Your task to perform on an android device: open a new tab in the chrome app Image 0: 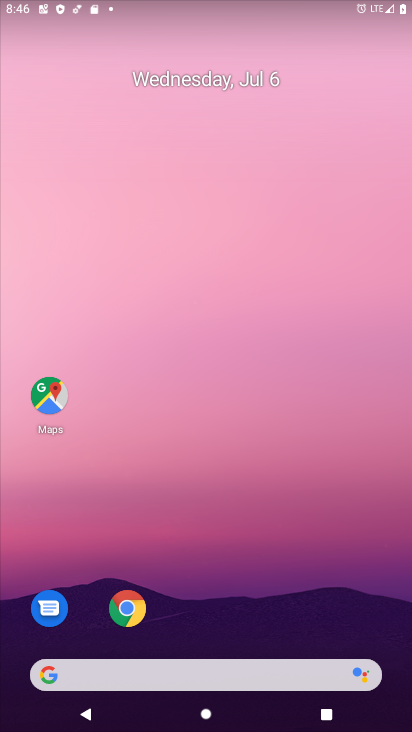
Step 0: drag from (267, 143) to (251, 48)
Your task to perform on an android device: open a new tab in the chrome app Image 1: 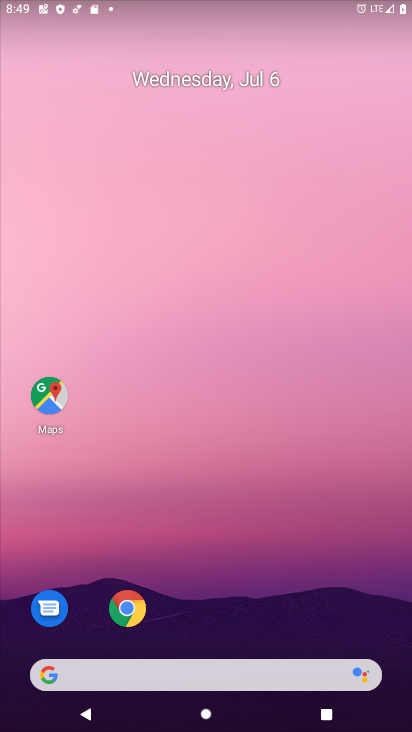
Step 1: drag from (392, 647) to (209, 8)
Your task to perform on an android device: open a new tab in the chrome app Image 2: 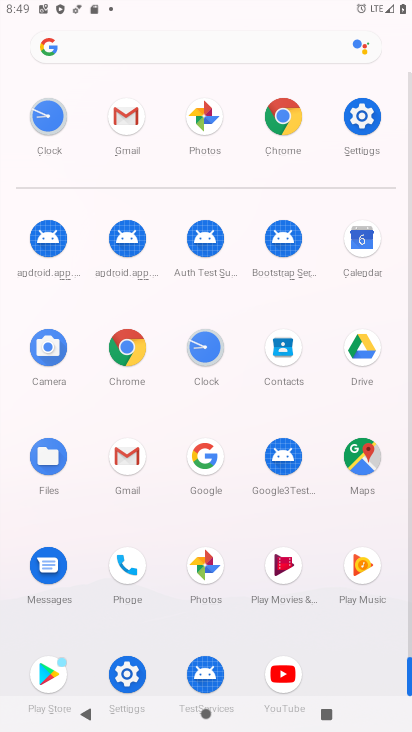
Step 2: click (280, 115)
Your task to perform on an android device: open a new tab in the chrome app Image 3: 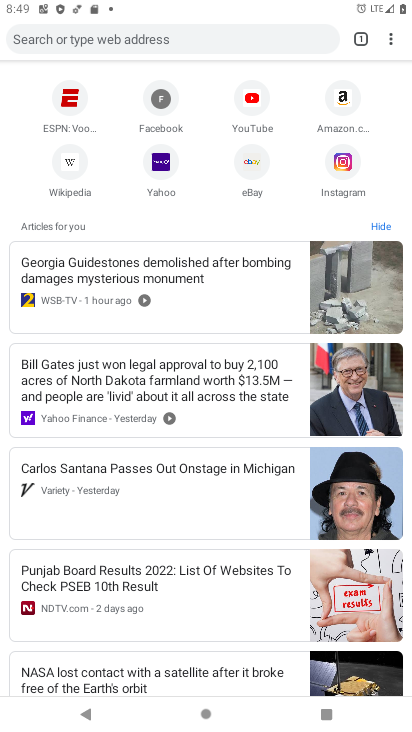
Step 3: click (393, 35)
Your task to perform on an android device: open a new tab in the chrome app Image 4: 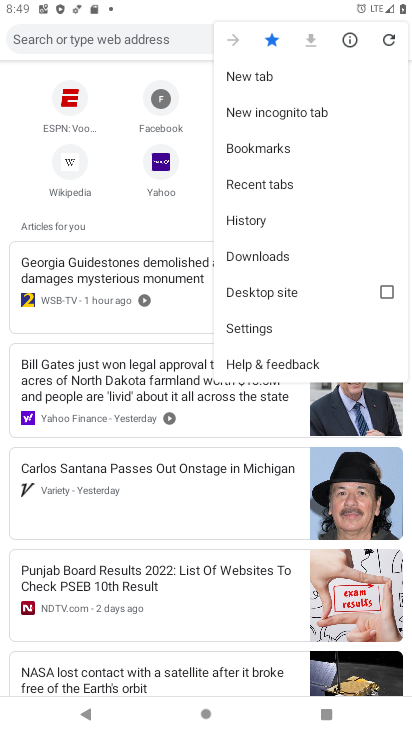
Step 4: click (284, 78)
Your task to perform on an android device: open a new tab in the chrome app Image 5: 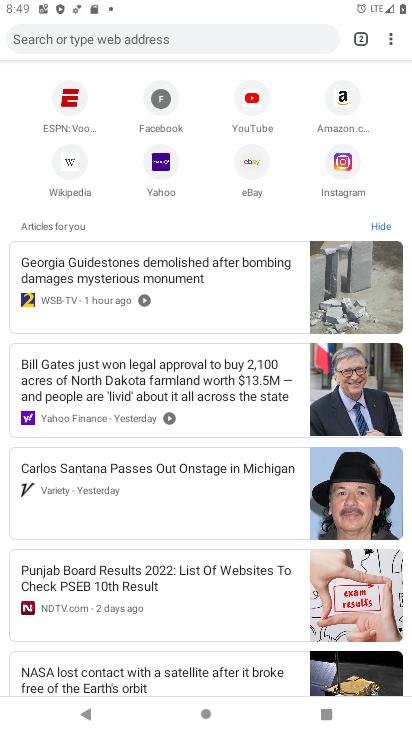
Step 5: task complete